Your task to perform on an android device: Do I have any events tomorrow? Image 0: 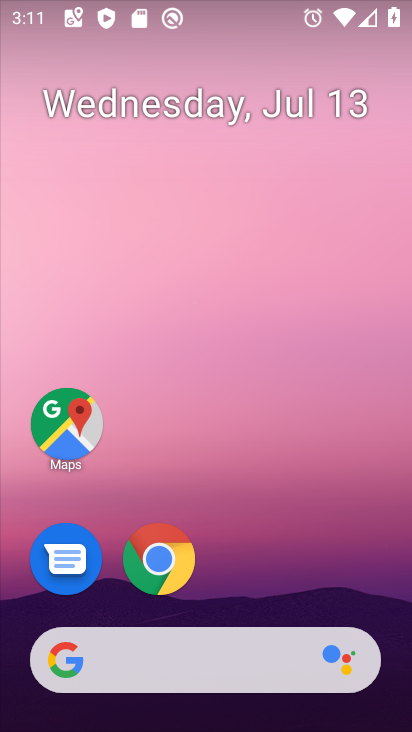
Step 0: drag from (361, 593) to (360, 263)
Your task to perform on an android device: Do I have any events tomorrow? Image 1: 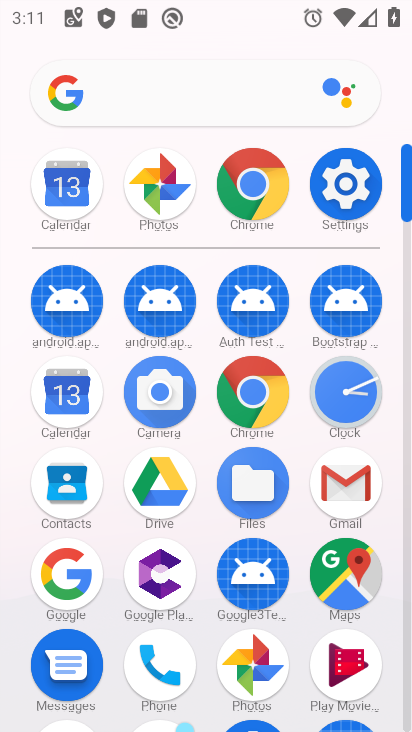
Step 1: click (51, 409)
Your task to perform on an android device: Do I have any events tomorrow? Image 2: 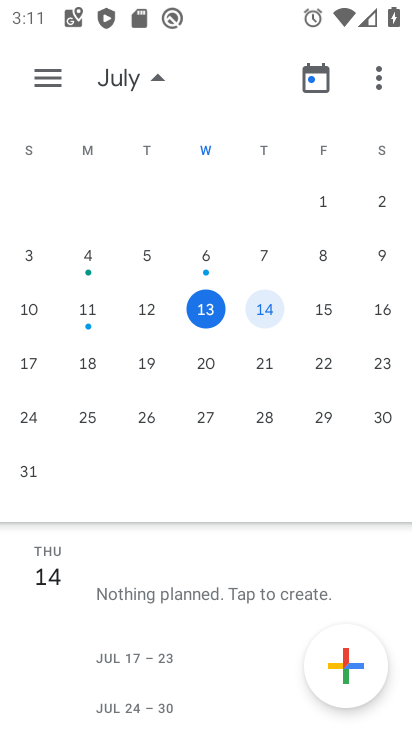
Step 2: task complete